Your task to perform on an android device: turn vacation reply on in the gmail app Image 0: 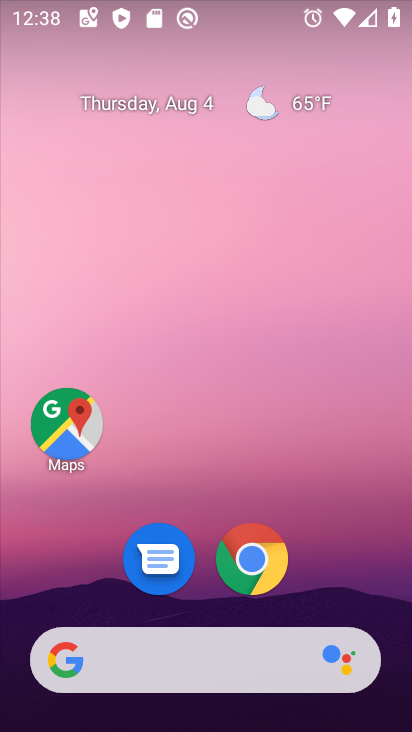
Step 0: drag from (160, 682) to (260, 75)
Your task to perform on an android device: turn vacation reply on in the gmail app Image 1: 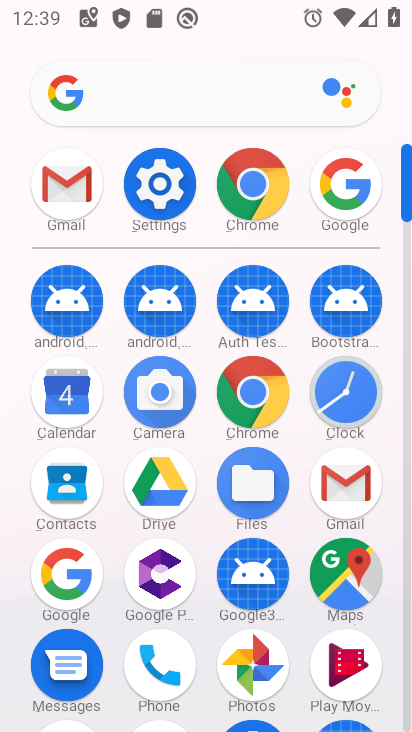
Step 1: click (66, 184)
Your task to perform on an android device: turn vacation reply on in the gmail app Image 2: 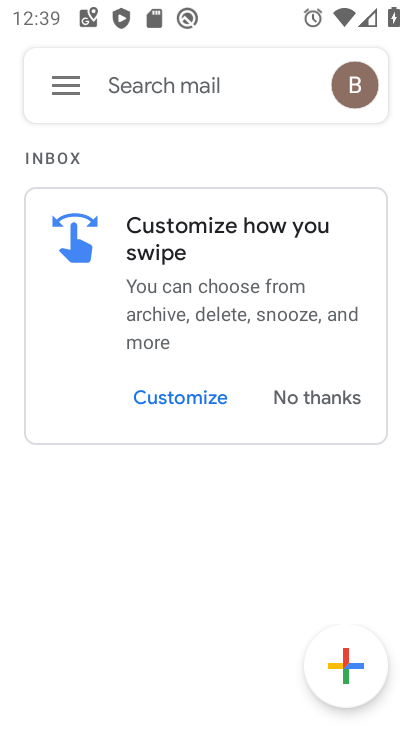
Step 2: click (63, 89)
Your task to perform on an android device: turn vacation reply on in the gmail app Image 3: 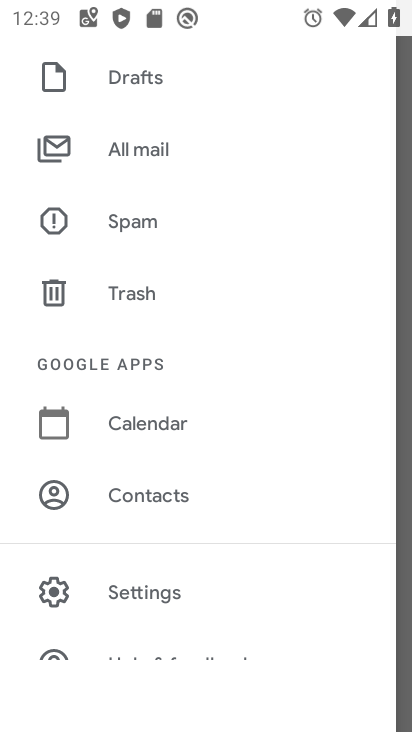
Step 3: click (147, 592)
Your task to perform on an android device: turn vacation reply on in the gmail app Image 4: 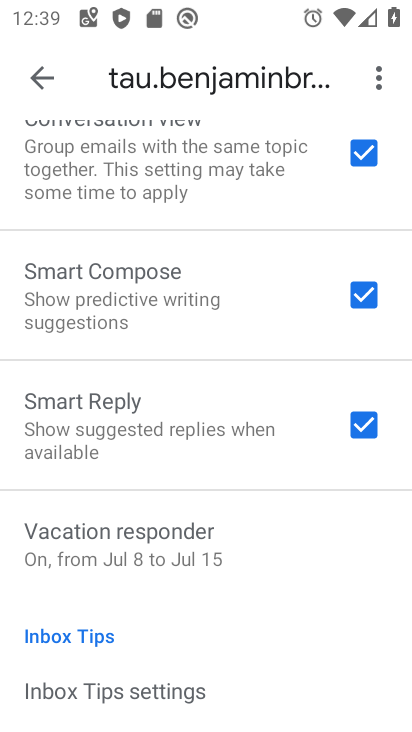
Step 4: click (98, 534)
Your task to perform on an android device: turn vacation reply on in the gmail app Image 5: 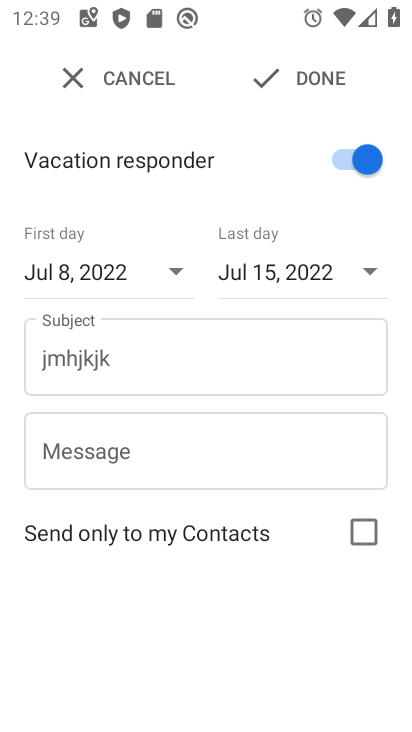
Step 5: task complete